Your task to perform on an android device: turn on improve location accuracy Image 0: 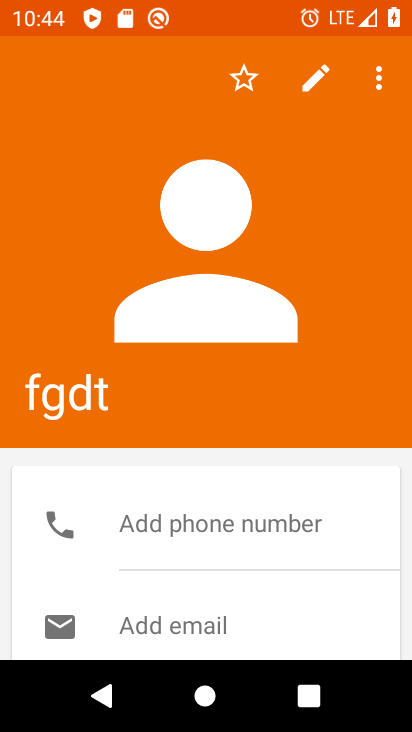
Step 0: drag from (187, 586) to (299, 212)
Your task to perform on an android device: turn on improve location accuracy Image 1: 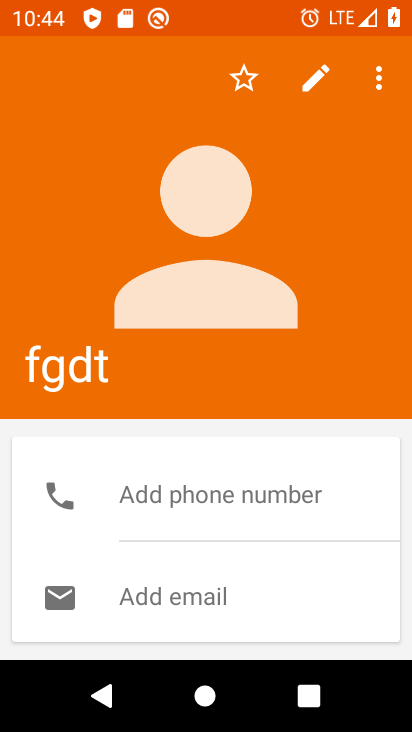
Step 1: press home button
Your task to perform on an android device: turn on improve location accuracy Image 2: 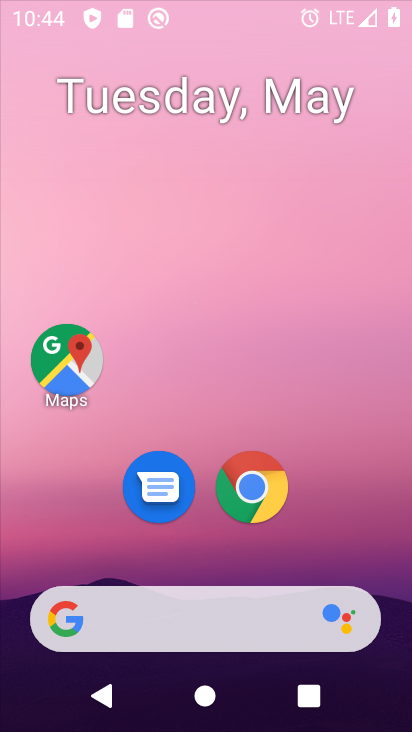
Step 2: drag from (239, 544) to (125, 47)
Your task to perform on an android device: turn on improve location accuracy Image 3: 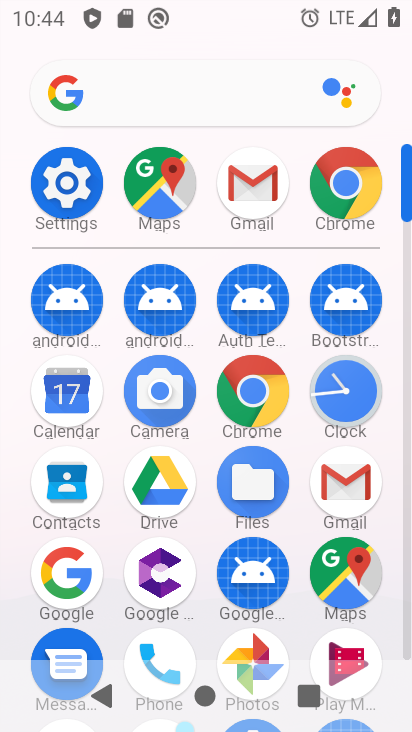
Step 3: click (49, 171)
Your task to perform on an android device: turn on improve location accuracy Image 4: 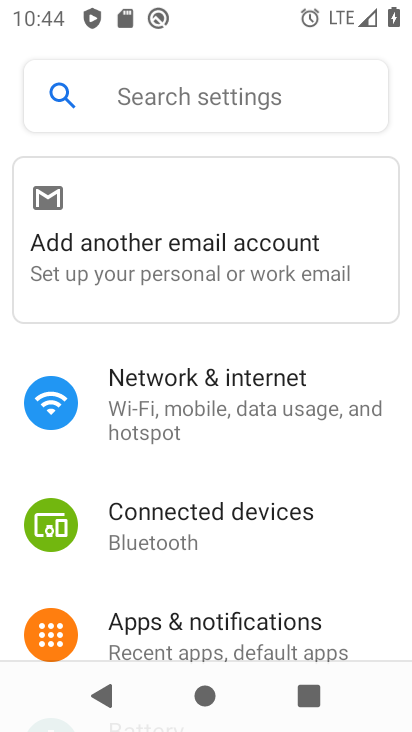
Step 4: drag from (251, 560) to (263, 139)
Your task to perform on an android device: turn on improve location accuracy Image 5: 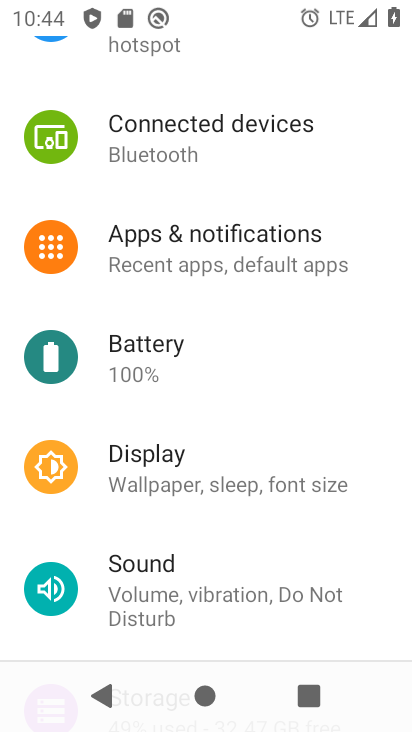
Step 5: drag from (253, 518) to (245, 87)
Your task to perform on an android device: turn on improve location accuracy Image 6: 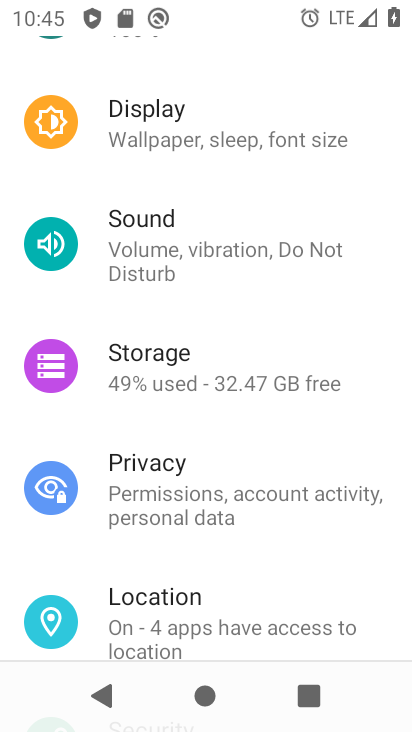
Step 6: click (176, 598)
Your task to perform on an android device: turn on improve location accuracy Image 7: 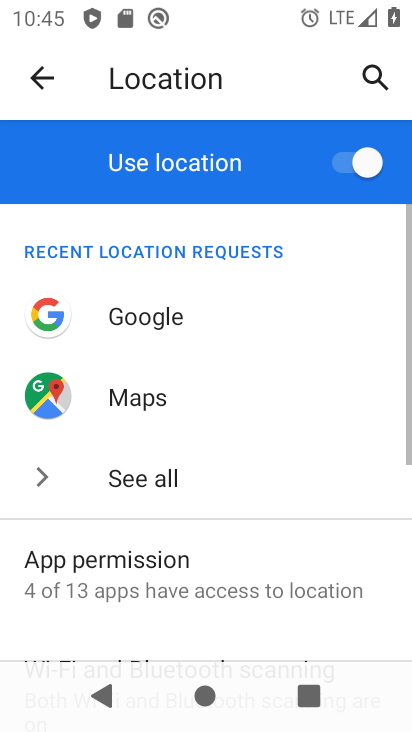
Step 7: drag from (198, 562) to (263, 60)
Your task to perform on an android device: turn on improve location accuracy Image 8: 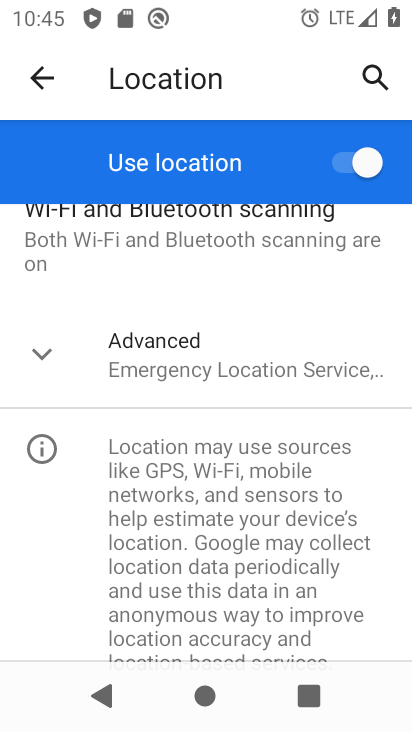
Step 8: click (125, 391)
Your task to perform on an android device: turn on improve location accuracy Image 9: 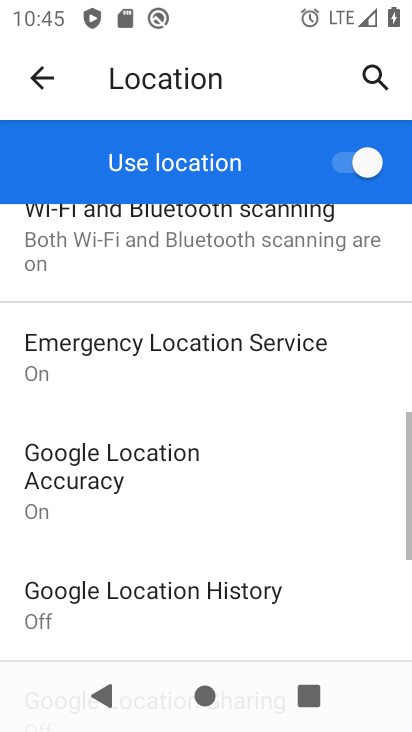
Step 9: drag from (220, 536) to (281, 240)
Your task to perform on an android device: turn on improve location accuracy Image 10: 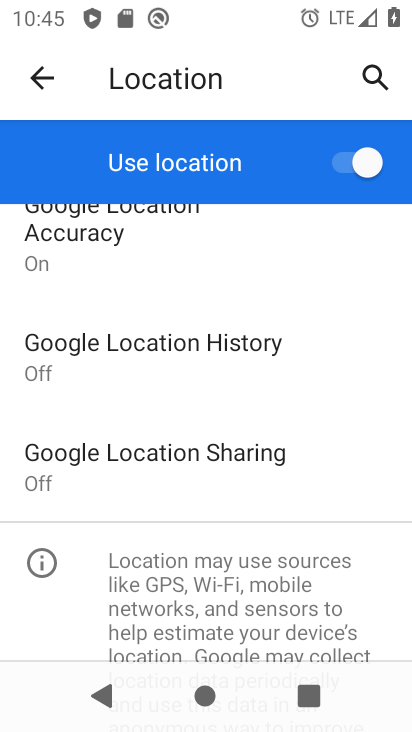
Step 10: click (136, 245)
Your task to perform on an android device: turn on improve location accuracy Image 11: 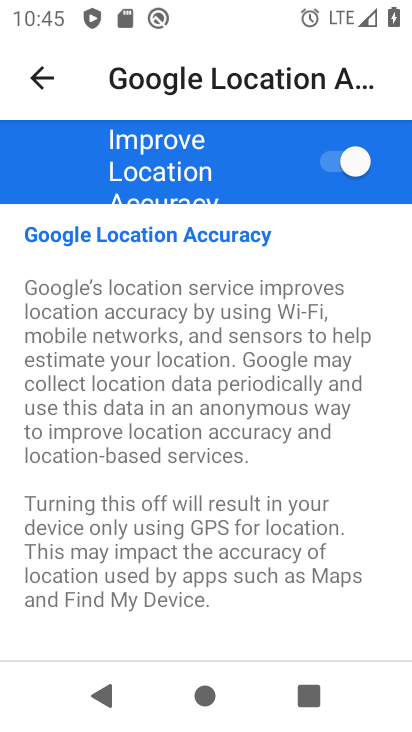
Step 11: task complete